Your task to perform on an android device: change your default location settings in chrome Image 0: 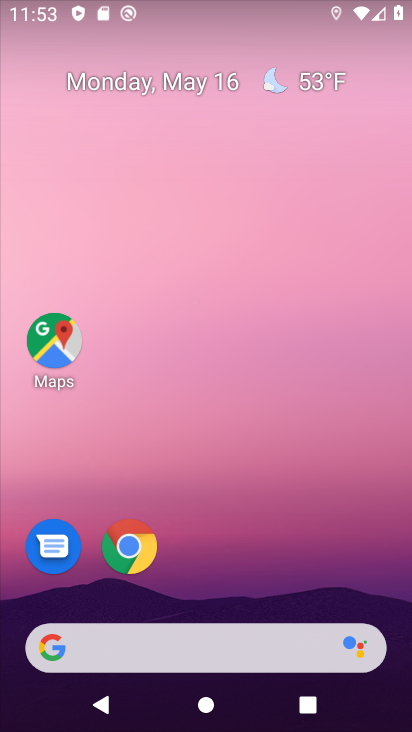
Step 0: click (129, 547)
Your task to perform on an android device: change your default location settings in chrome Image 1: 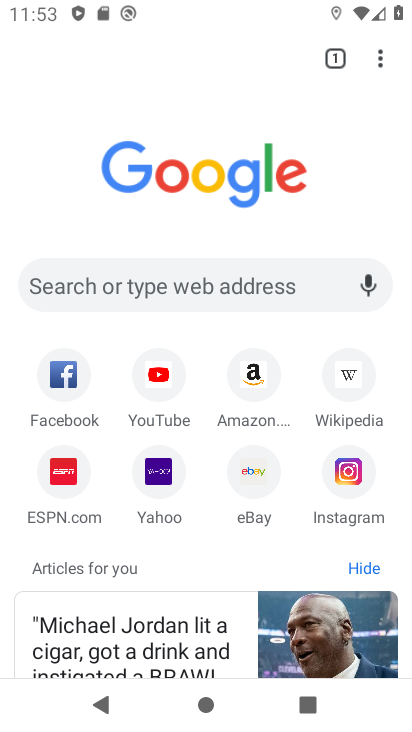
Step 1: click (371, 61)
Your task to perform on an android device: change your default location settings in chrome Image 2: 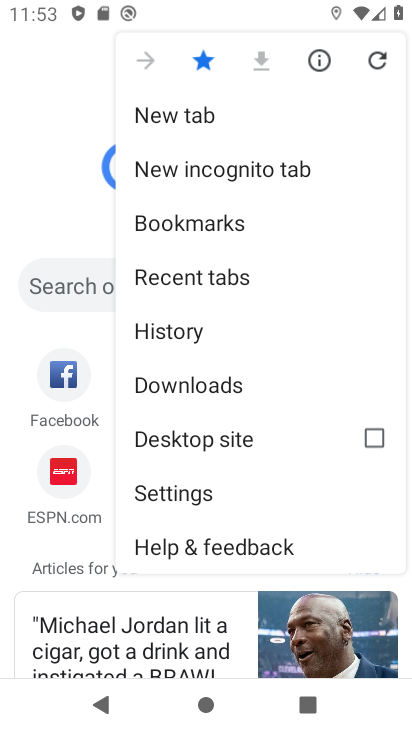
Step 2: click (197, 497)
Your task to perform on an android device: change your default location settings in chrome Image 3: 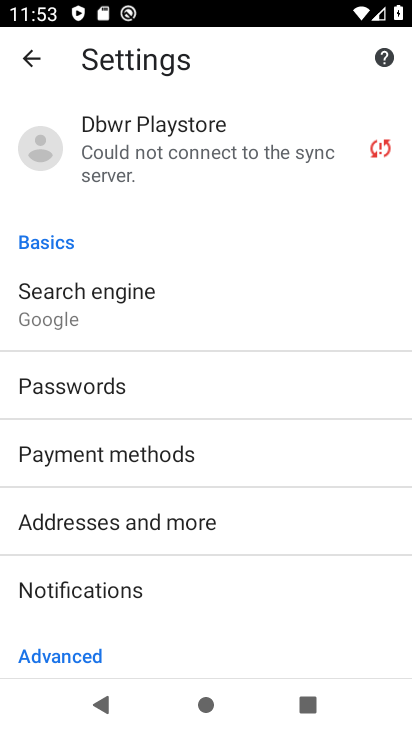
Step 3: click (142, 320)
Your task to perform on an android device: change your default location settings in chrome Image 4: 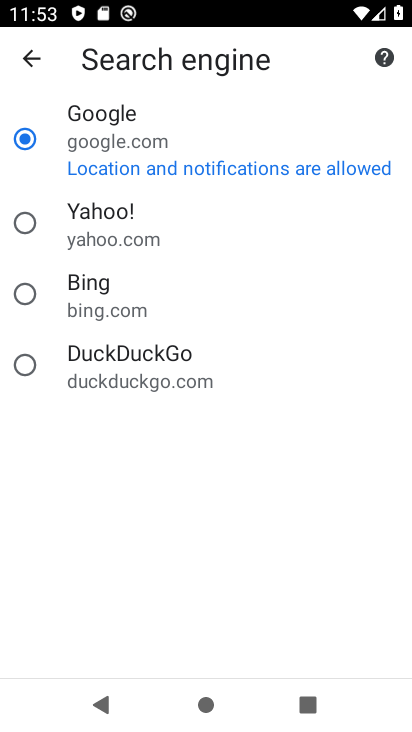
Step 4: click (27, 223)
Your task to perform on an android device: change your default location settings in chrome Image 5: 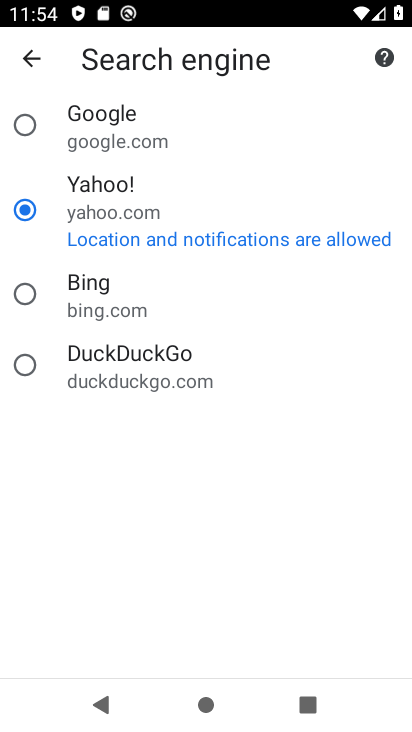
Step 5: task complete